Your task to perform on an android device: Open Google Chrome and click the shortcut for Amazon.com Image 0: 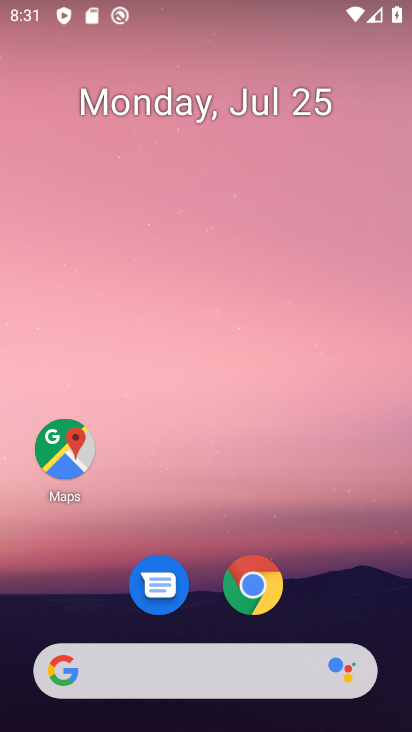
Step 0: click (250, 592)
Your task to perform on an android device: Open Google Chrome and click the shortcut for Amazon.com Image 1: 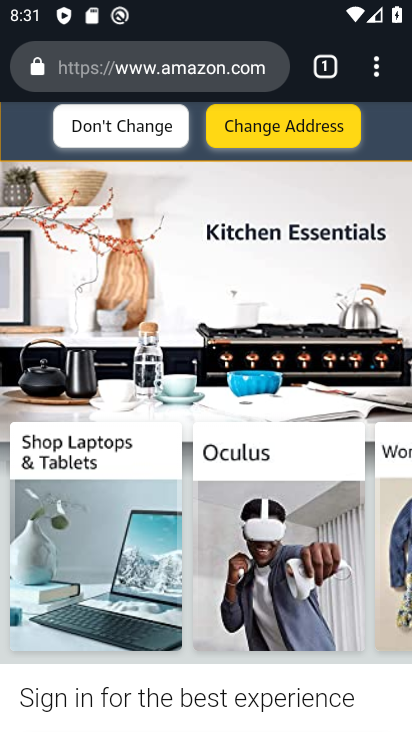
Step 1: task complete